Your task to perform on an android device: Open Yahoo.com Image 0: 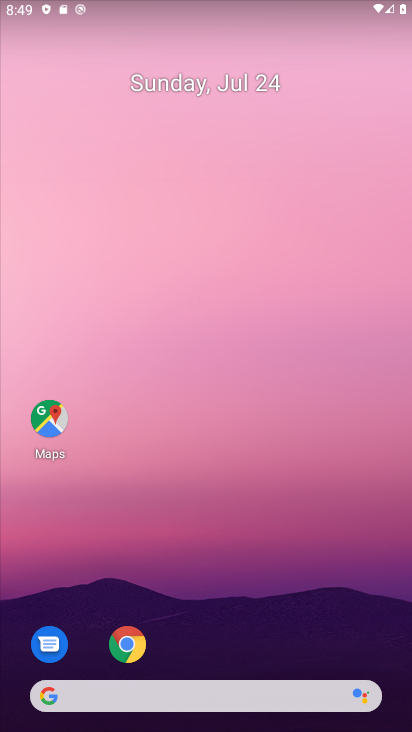
Step 0: click (190, 423)
Your task to perform on an android device: Open Yahoo.com Image 1: 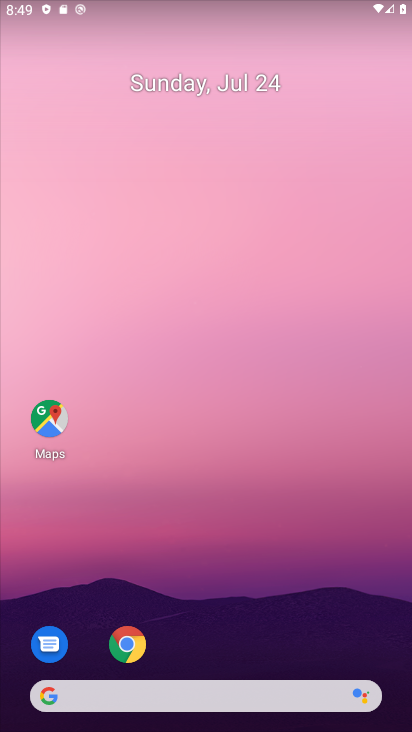
Step 1: drag from (280, 661) to (204, 194)
Your task to perform on an android device: Open Yahoo.com Image 2: 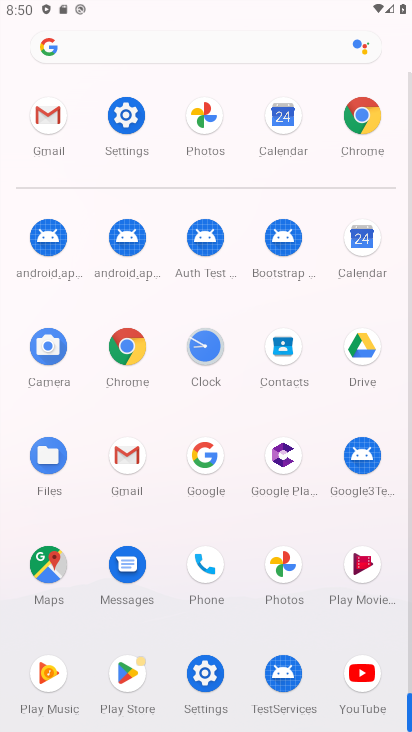
Step 2: click (355, 117)
Your task to perform on an android device: Open Yahoo.com Image 3: 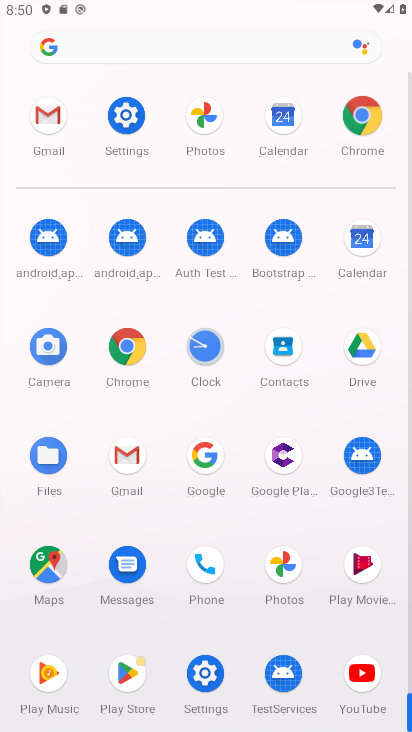
Step 3: click (357, 115)
Your task to perform on an android device: Open Yahoo.com Image 4: 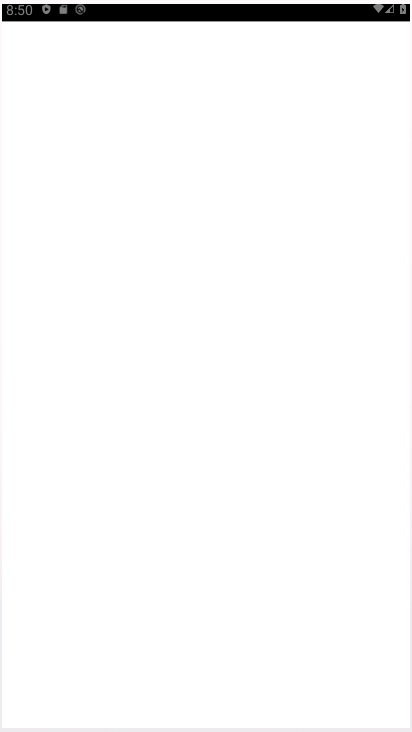
Step 4: click (352, 114)
Your task to perform on an android device: Open Yahoo.com Image 5: 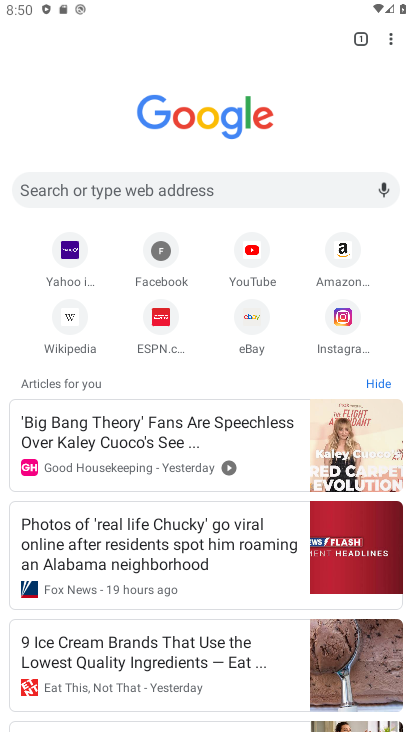
Step 5: click (65, 257)
Your task to perform on an android device: Open Yahoo.com Image 6: 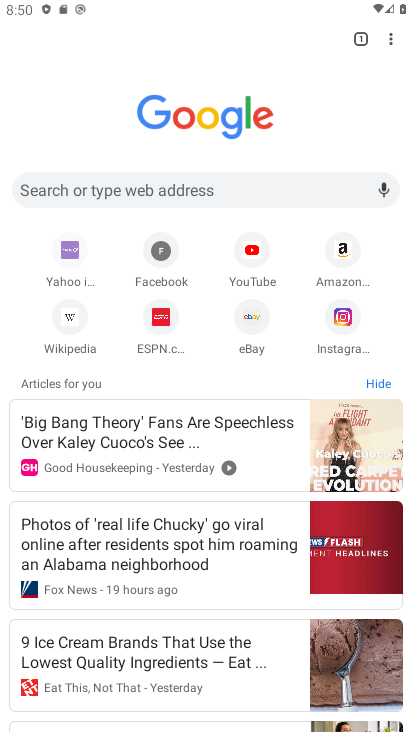
Step 6: click (68, 257)
Your task to perform on an android device: Open Yahoo.com Image 7: 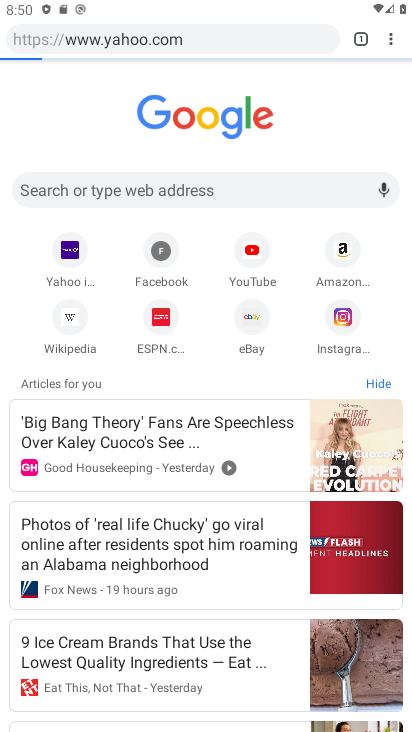
Step 7: click (73, 253)
Your task to perform on an android device: Open Yahoo.com Image 8: 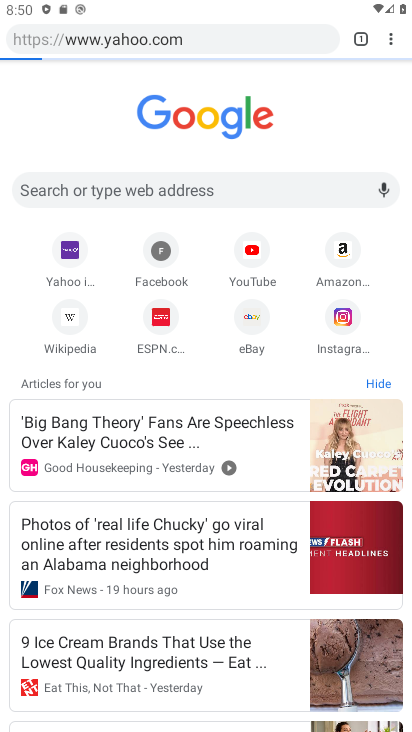
Step 8: click (73, 253)
Your task to perform on an android device: Open Yahoo.com Image 9: 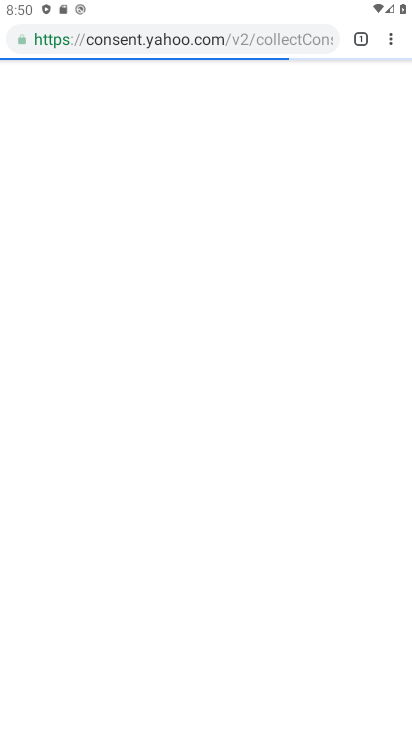
Step 9: click (75, 251)
Your task to perform on an android device: Open Yahoo.com Image 10: 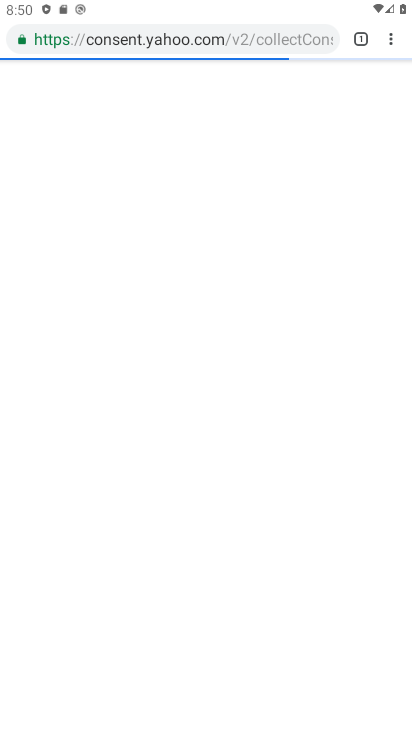
Step 10: click (75, 251)
Your task to perform on an android device: Open Yahoo.com Image 11: 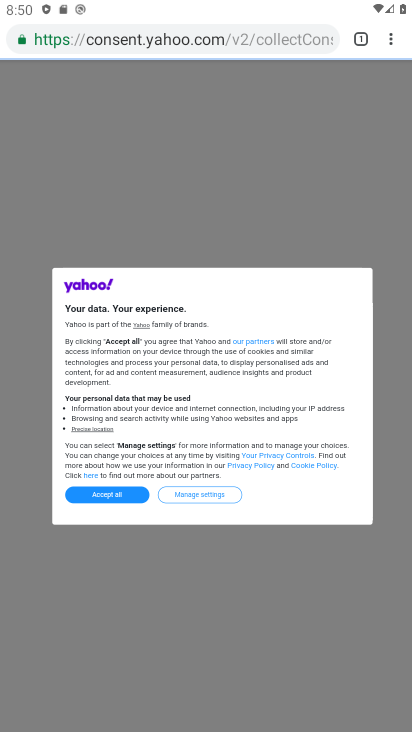
Step 11: click (74, 252)
Your task to perform on an android device: Open Yahoo.com Image 12: 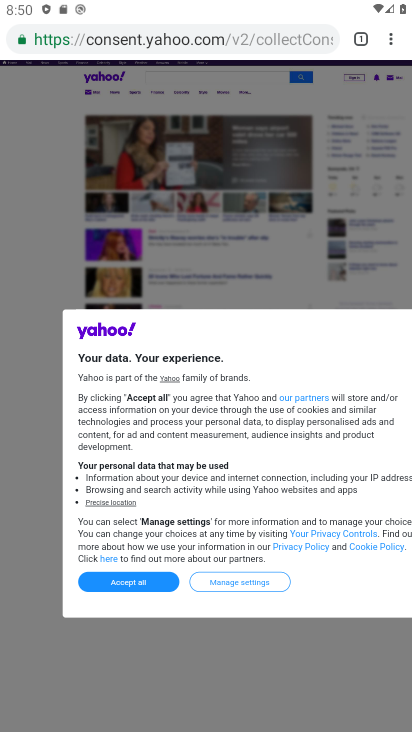
Step 12: task complete